Your task to perform on an android device: Go to wifi settings Image 0: 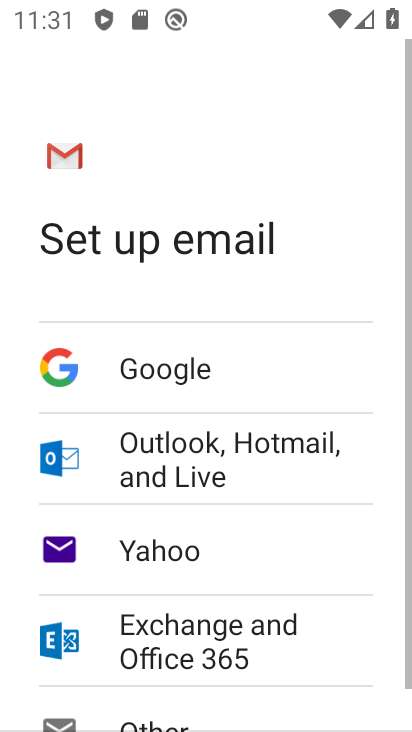
Step 0: press home button
Your task to perform on an android device: Go to wifi settings Image 1: 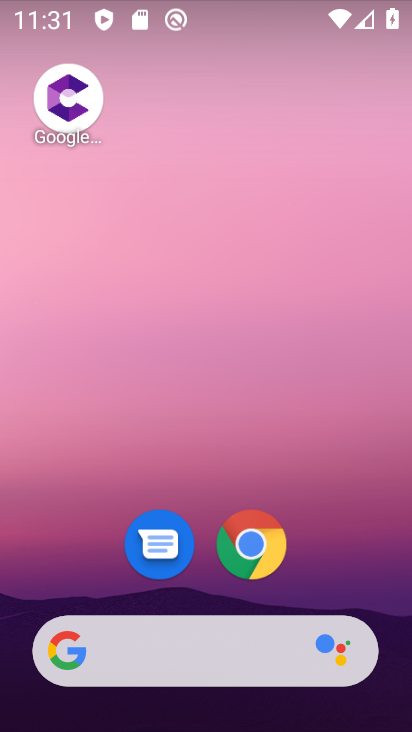
Step 1: drag from (249, 418) to (290, 71)
Your task to perform on an android device: Go to wifi settings Image 2: 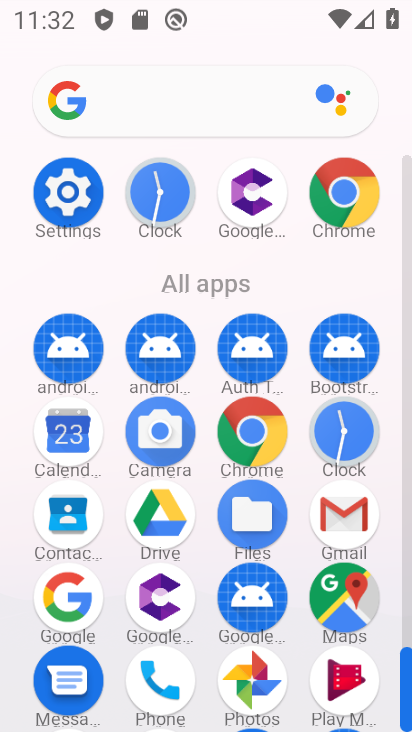
Step 2: click (83, 213)
Your task to perform on an android device: Go to wifi settings Image 3: 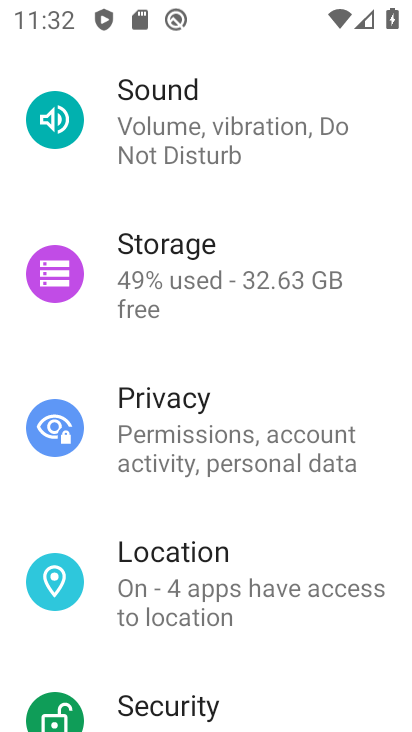
Step 3: drag from (98, 197) to (109, 608)
Your task to perform on an android device: Go to wifi settings Image 4: 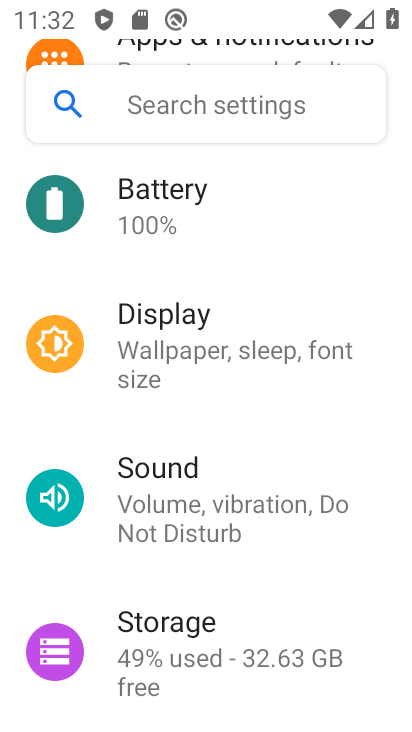
Step 4: drag from (147, 309) to (114, 652)
Your task to perform on an android device: Go to wifi settings Image 5: 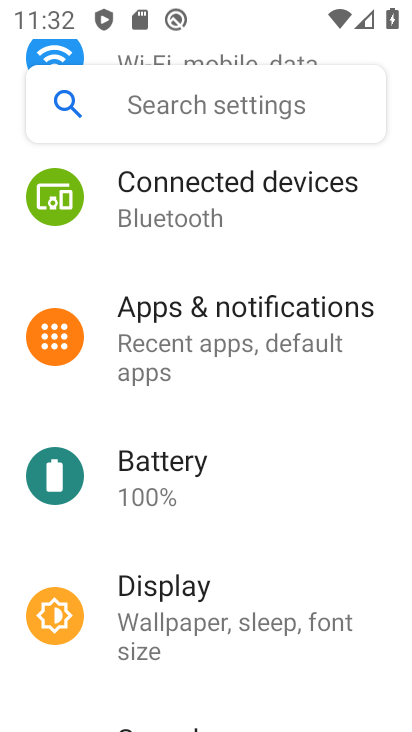
Step 5: drag from (195, 270) to (152, 660)
Your task to perform on an android device: Go to wifi settings Image 6: 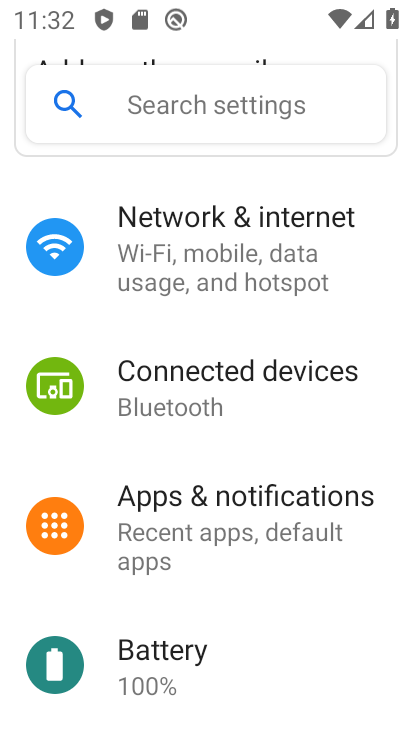
Step 6: click (204, 256)
Your task to perform on an android device: Go to wifi settings Image 7: 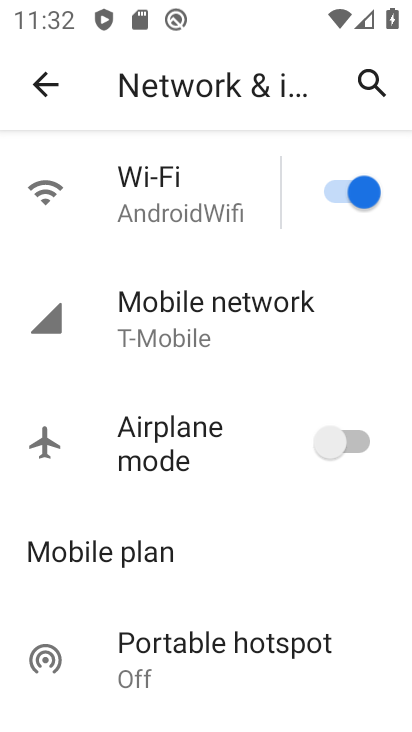
Step 7: task complete